Your task to perform on an android device: Go to Android settings Image 0: 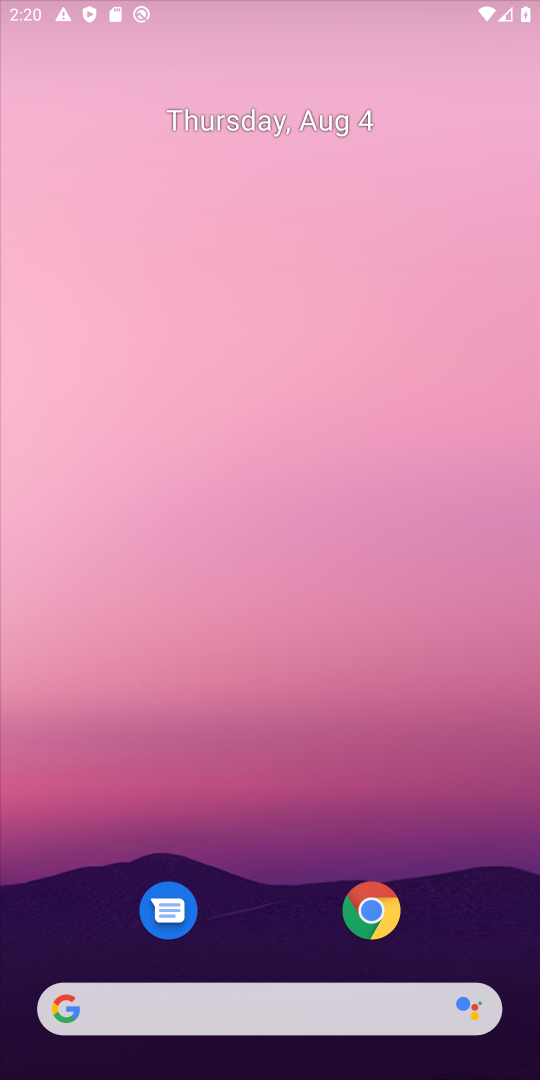
Step 0: press home button
Your task to perform on an android device: Go to Android settings Image 1: 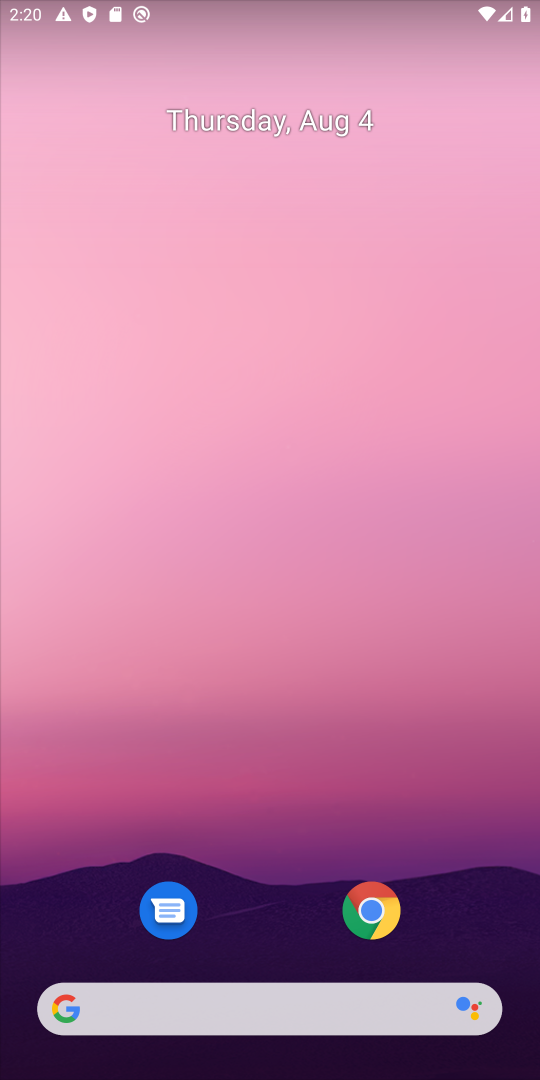
Step 1: drag from (270, 913) to (237, 309)
Your task to perform on an android device: Go to Android settings Image 2: 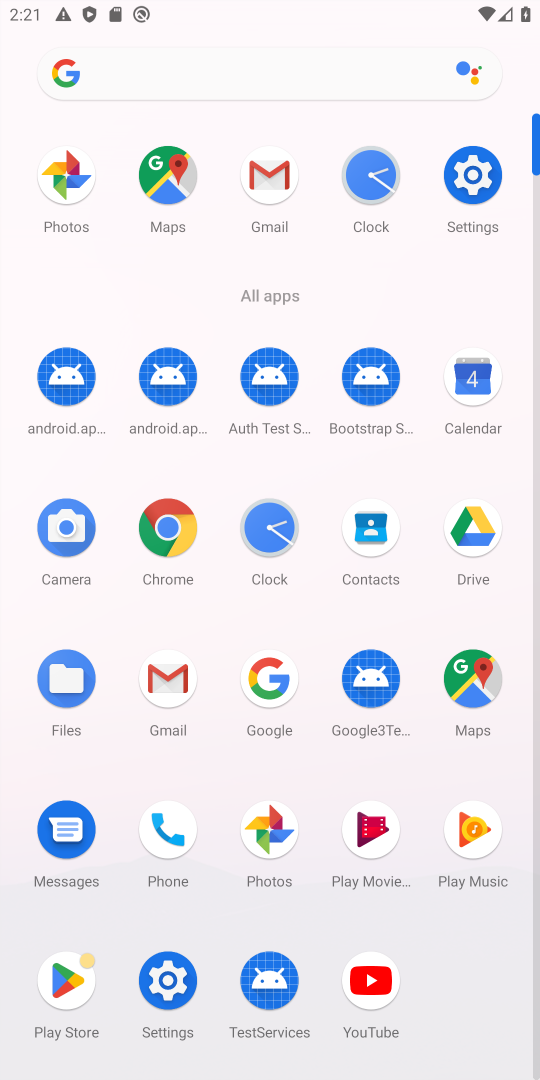
Step 2: click (165, 968)
Your task to perform on an android device: Go to Android settings Image 3: 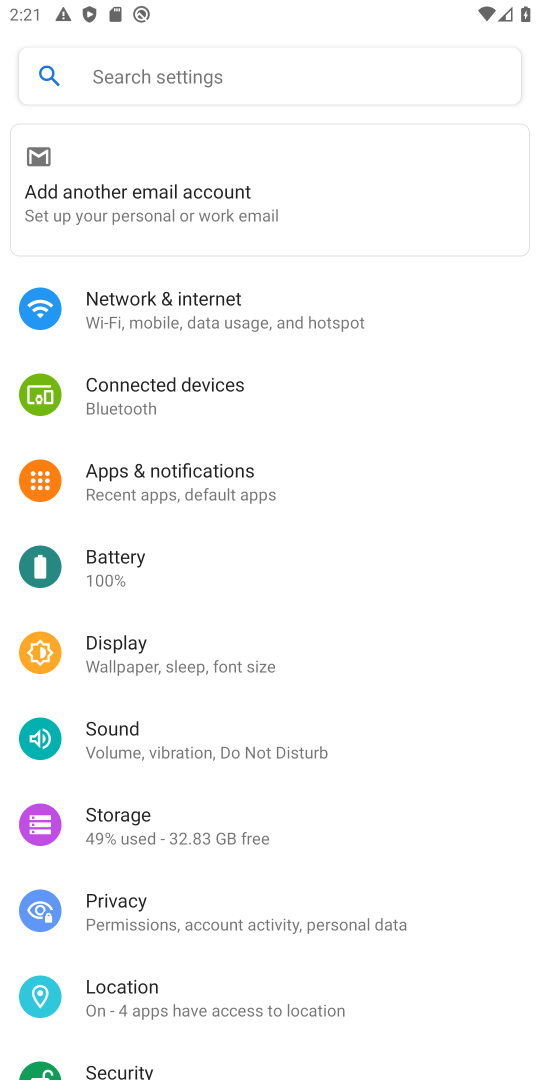
Step 3: drag from (169, 1051) to (160, 338)
Your task to perform on an android device: Go to Android settings Image 4: 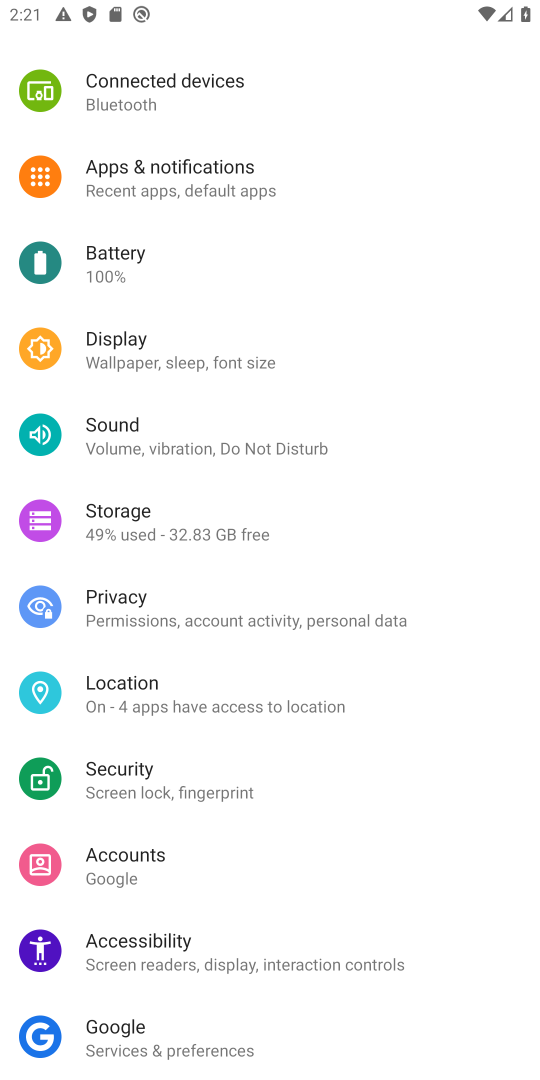
Step 4: drag from (192, 909) to (190, 553)
Your task to perform on an android device: Go to Android settings Image 5: 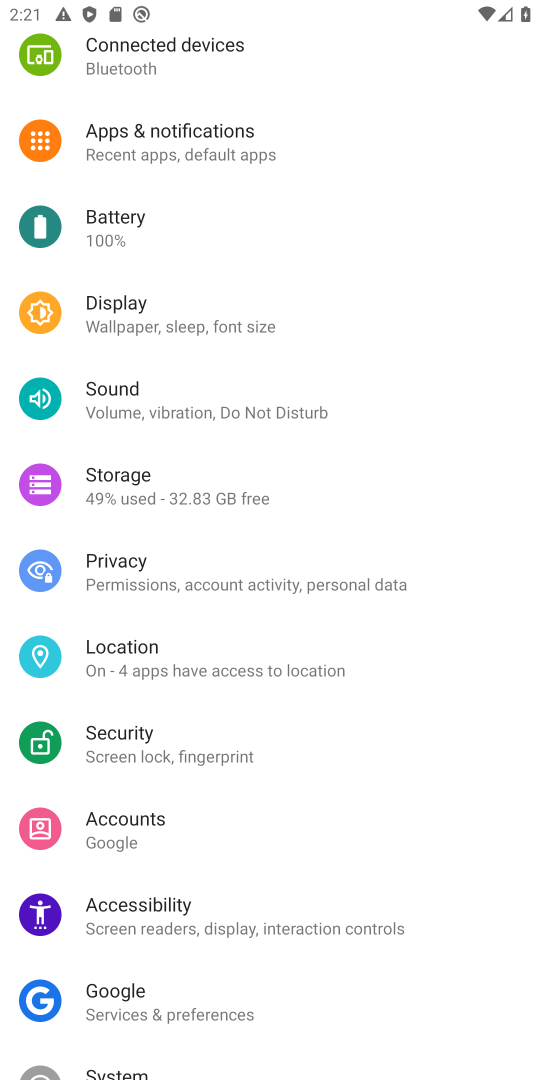
Step 5: click (126, 1060)
Your task to perform on an android device: Go to Android settings Image 6: 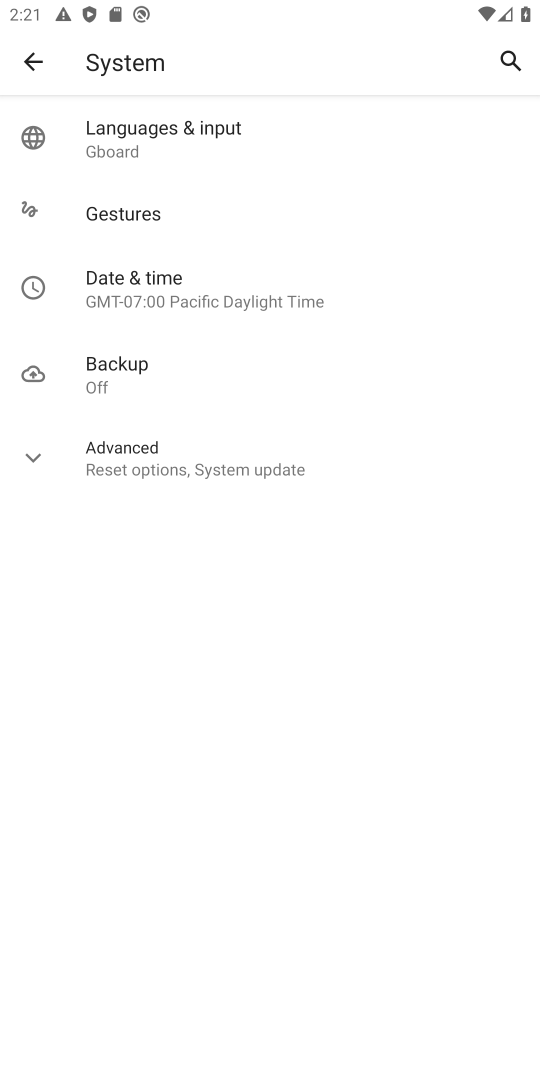
Step 6: task complete